Your task to perform on an android device: Open Wikipedia Image 0: 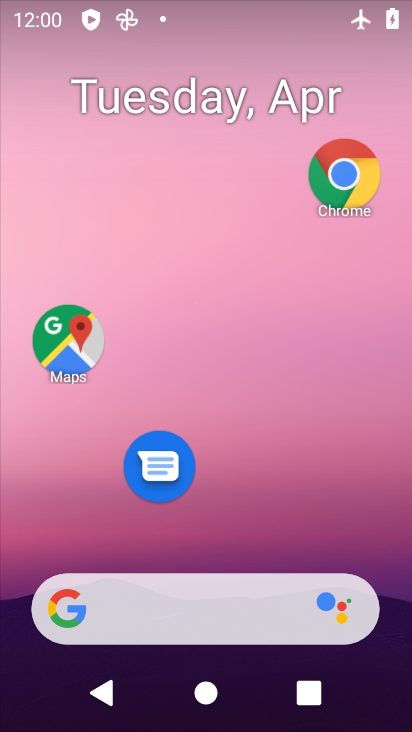
Step 0: drag from (189, 611) to (203, 395)
Your task to perform on an android device: Open Wikipedia Image 1: 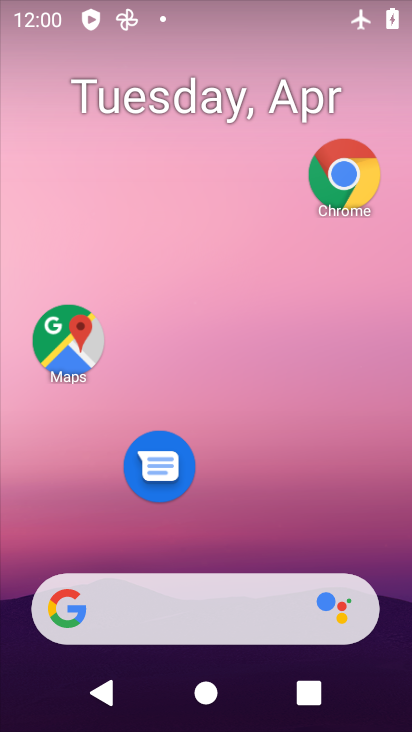
Step 1: drag from (214, 527) to (224, 185)
Your task to perform on an android device: Open Wikipedia Image 2: 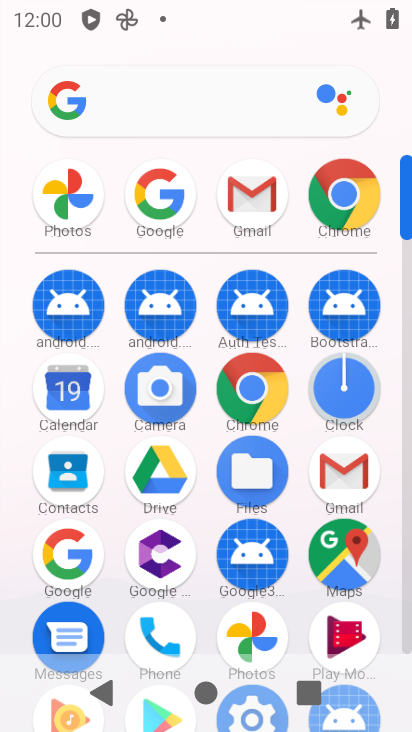
Step 2: click (341, 212)
Your task to perform on an android device: Open Wikipedia Image 3: 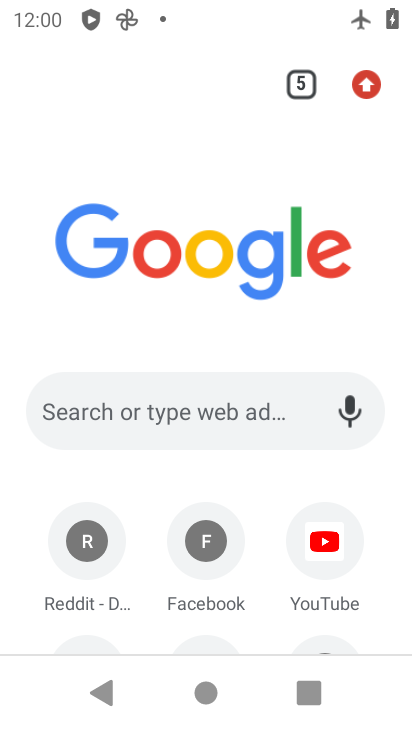
Step 3: drag from (209, 445) to (326, 7)
Your task to perform on an android device: Open Wikipedia Image 4: 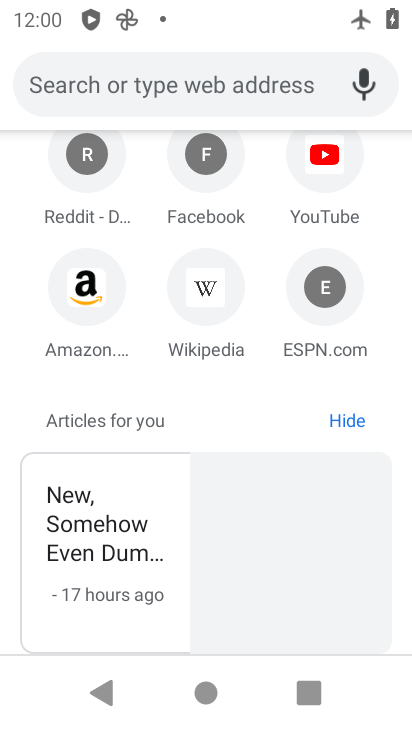
Step 4: click (233, 287)
Your task to perform on an android device: Open Wikipedia Image 5: 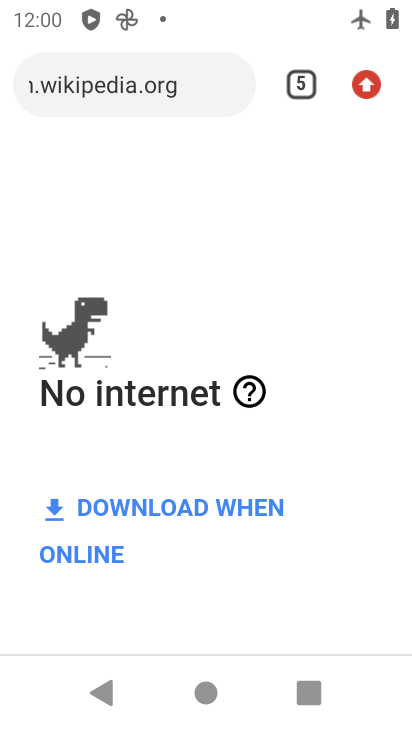
Step 5: task complete